Your task to perform on an android device: turn off picture-in-picture Image 0: 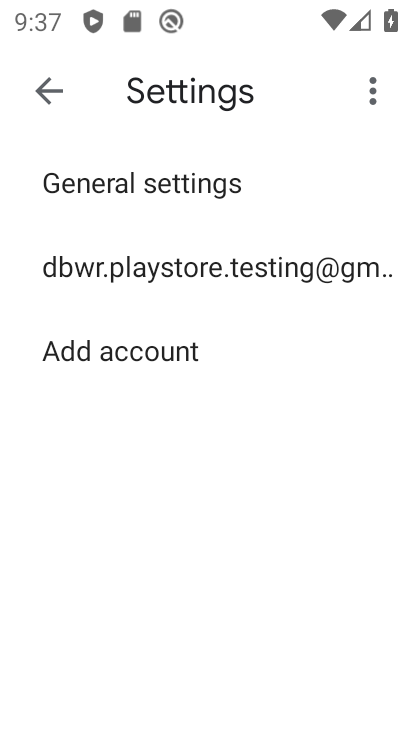
Step 0: drag from (250, 719) to (290, 0)
Your task to perform on an android device: turn off picture-in-picture Image 1: 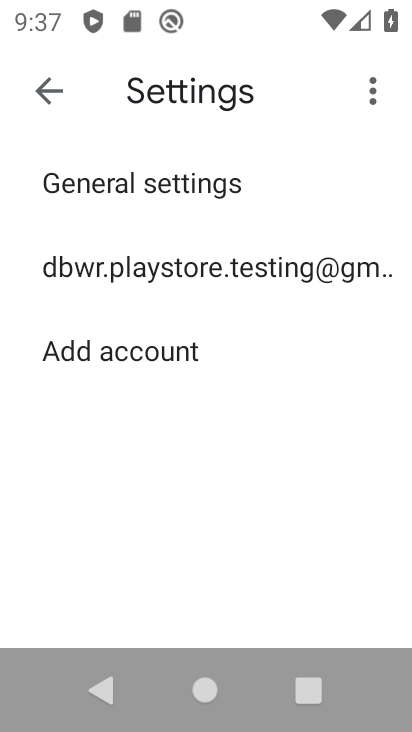
Step 1: press home button
Your task to perform on an android device: turn off picture-in-picture Image 2: 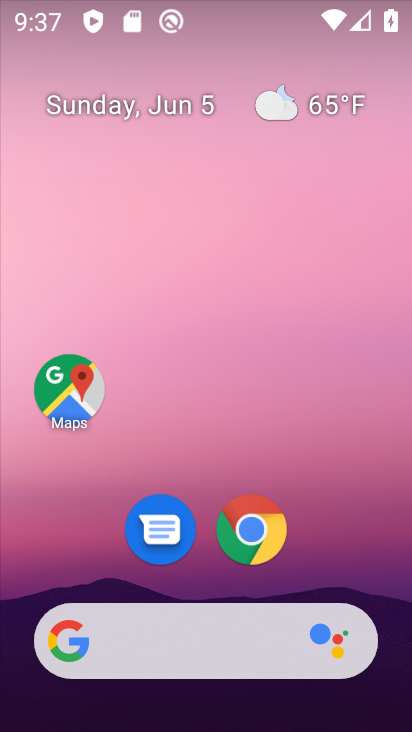
Step 2: click (262, 543)
Your task to perform on an android device: turn off picture-in-picture Image 3: 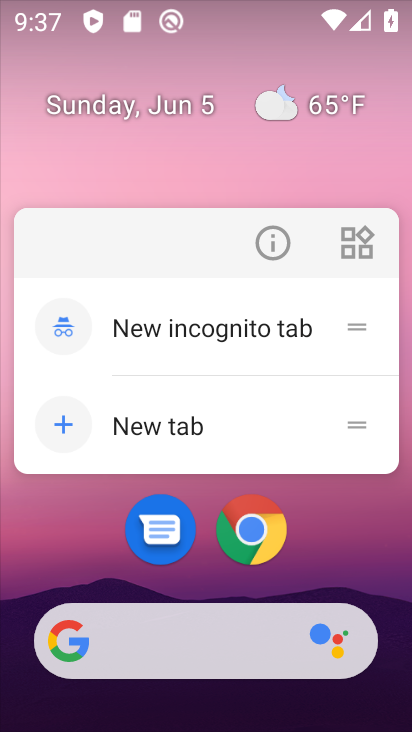
Step 3: click (266, 231)
Your task to perform on an android device: turn off picture-in-picture Image 4: 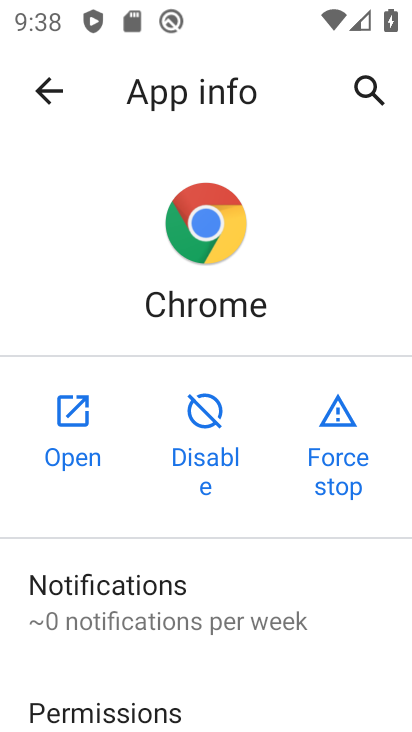
Step 4: drag from (274, 659) to (152, 3)
Your task to perform on an android device: turn off picture-in-picture Image 5: 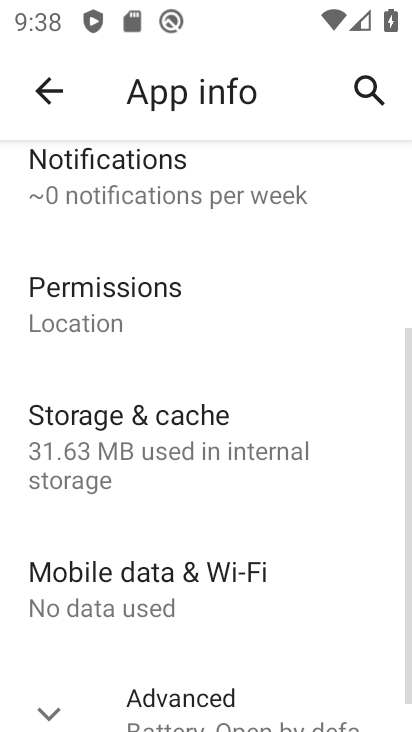
Step 5: drag from (240, 711) to (133, 51)
Your task to perform on an android device: turn off picture-in-picture Image 6: 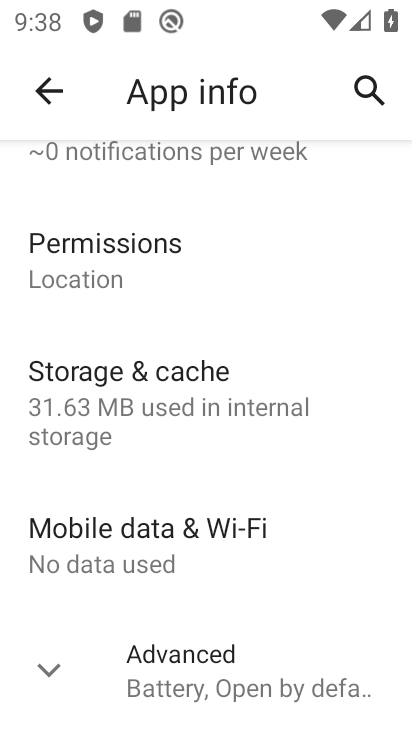
Step 6: click (225, 656)
Your task to perform on an android device: turn off picture-in-picture Image 7: 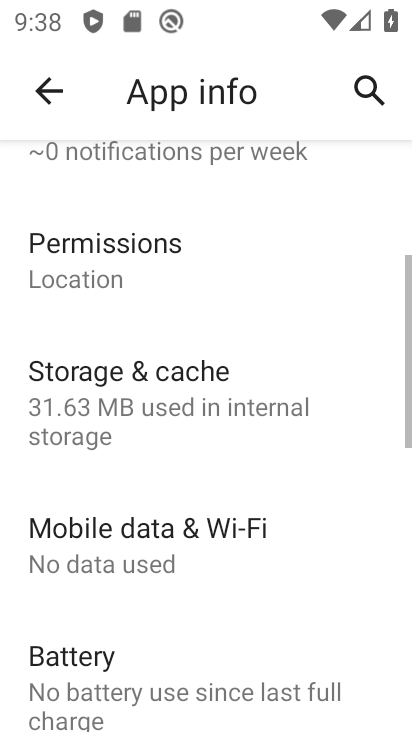
Step 7: drag from (288, 682) to (281, 49)
Your task to perform on an android device: turn off picture-in-picture Image 8: 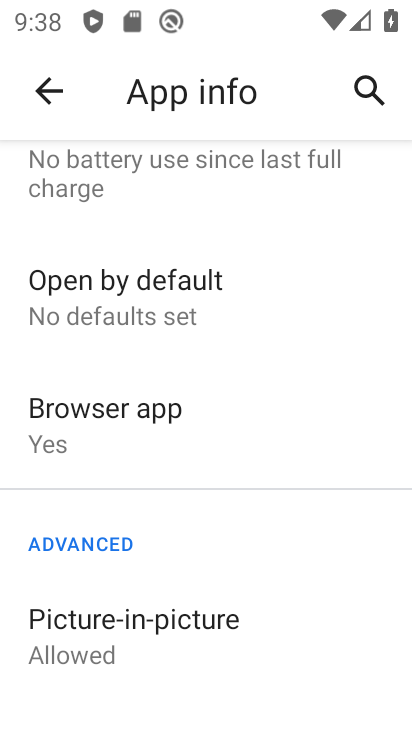
Step 8: click (193, 634)
Your task to perform on an android device: turn off picture-in-picture Image 9: 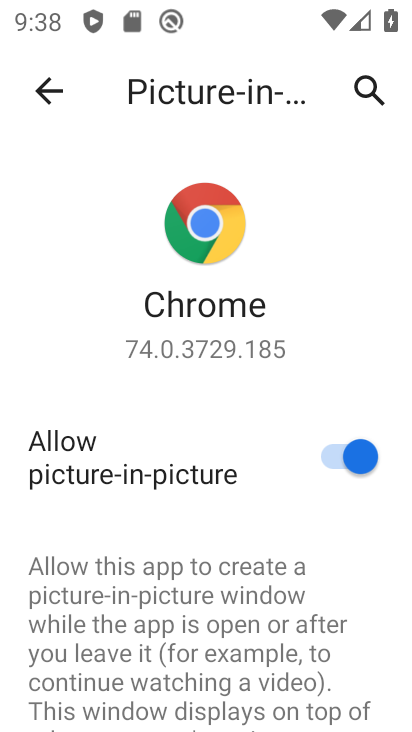
Step 9: click (359, 457)
Your task to perform on an android device: turn off picture-in-picture Image 10: 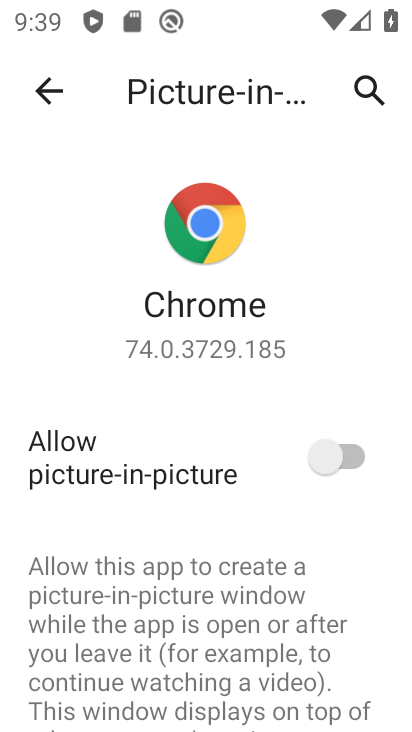
Step 10: task complete